Your task to perform on an android device: install app "Adobe Express: Graphic Design" Image 0: 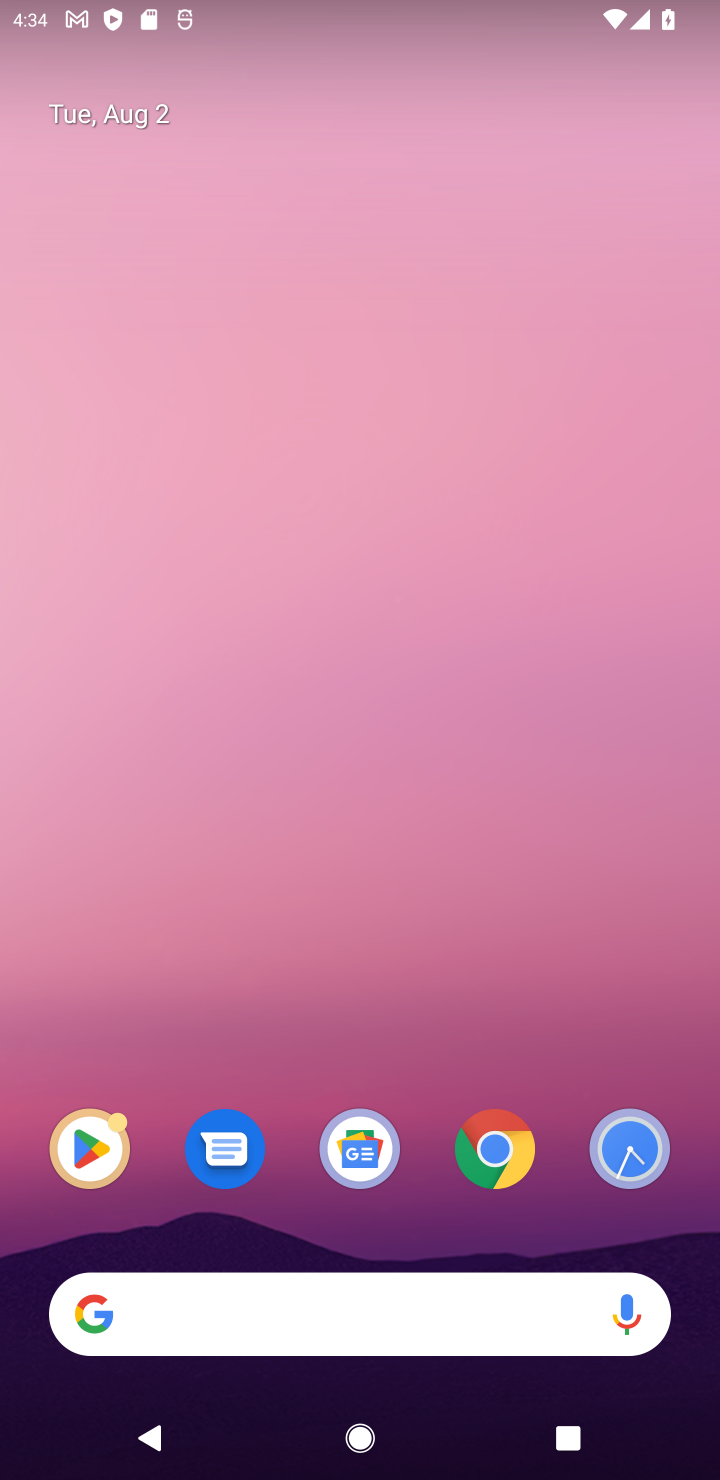
Step 0: click (100, 1142)
Your task to perform on an android device: install app "Adobe Express: Graphic Design" Image 1: 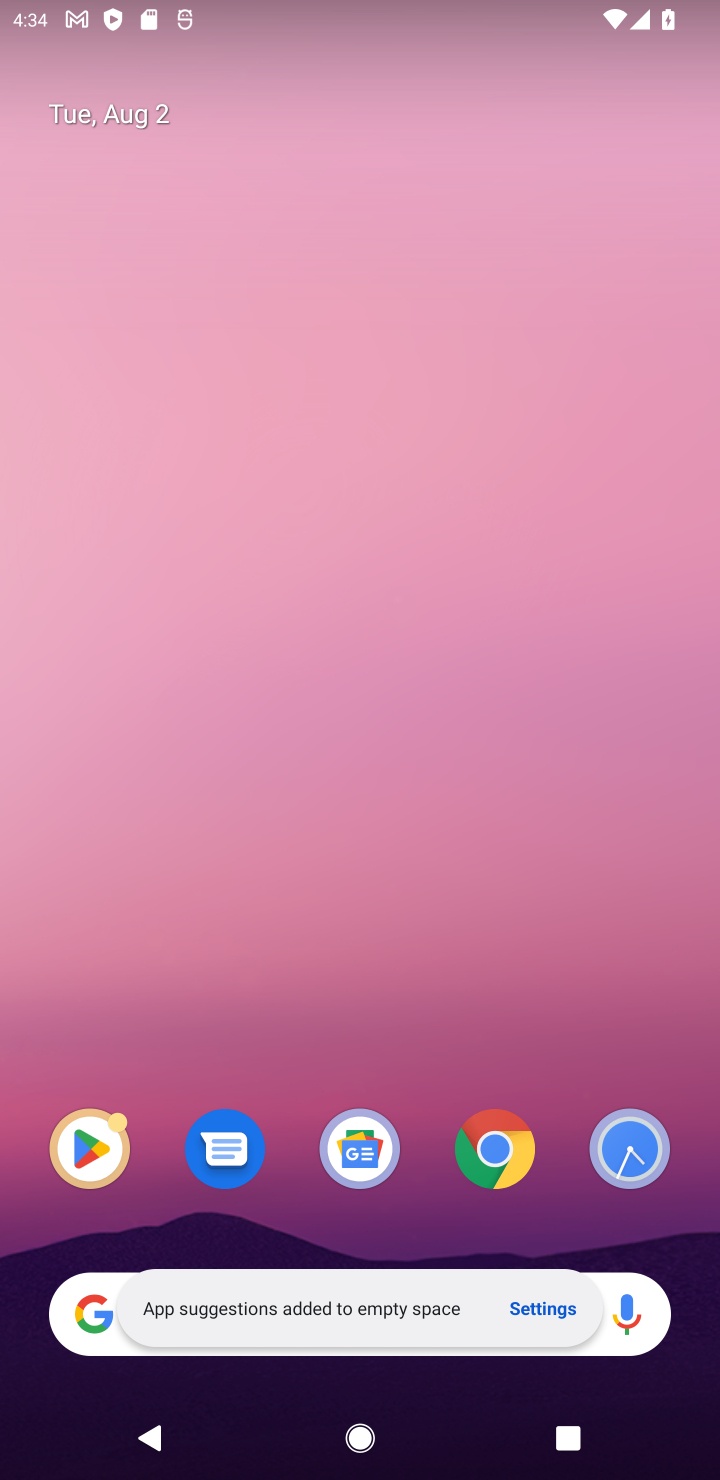
Step 1: click (96, 1117)
Your task to perform on an android device: install app "Adobe Express: Graphic Design" Image 2: 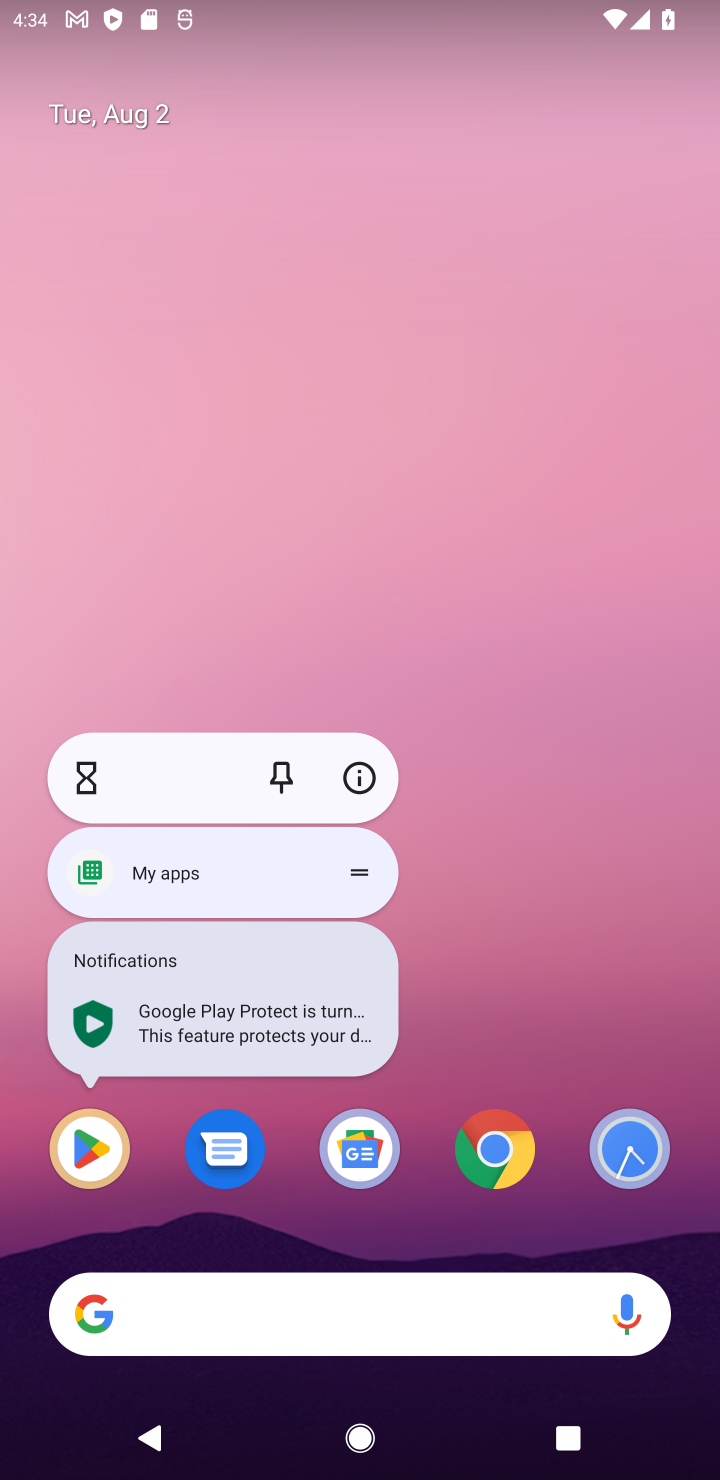
Step 2: click (108, 1166)
Your task to perform on an android device: install app "Adobe Express: Graphic Design" Image 3: 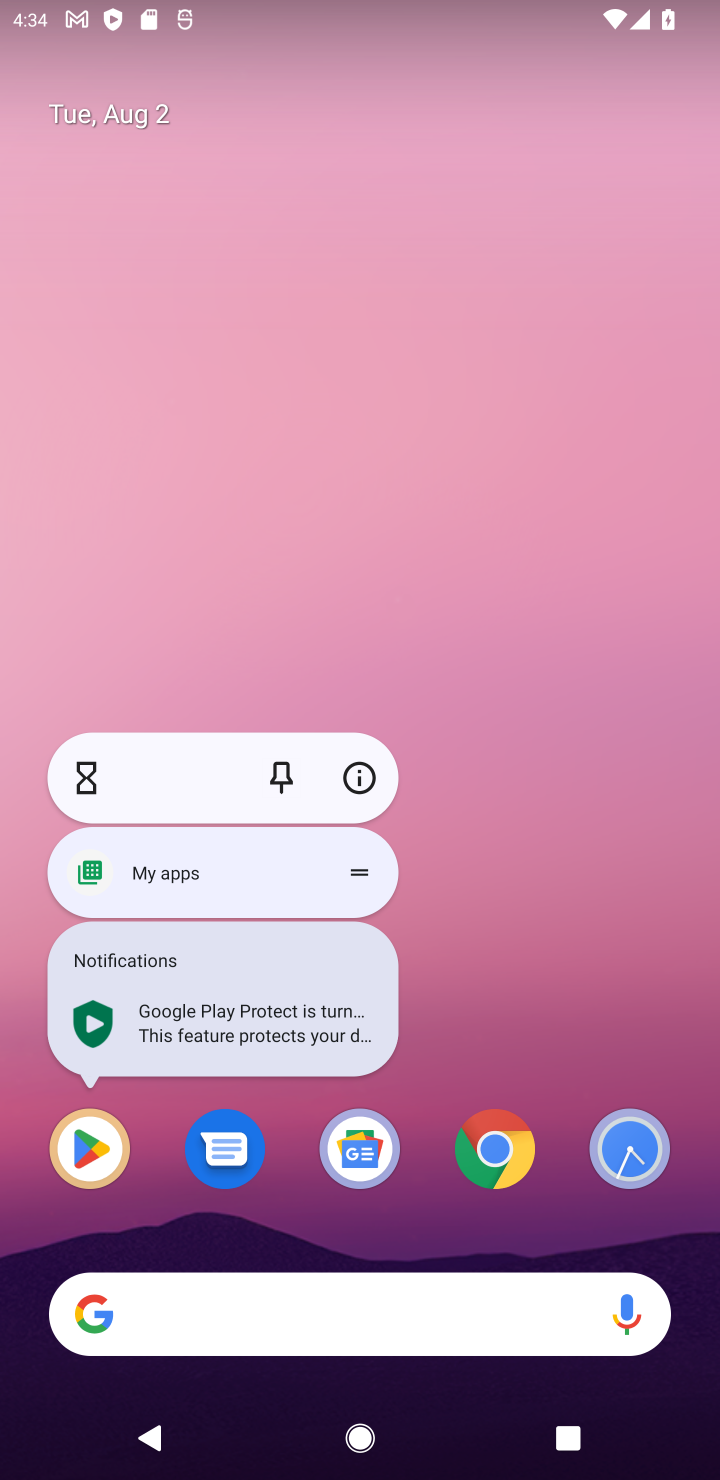
Step 3: click (65, 1138)
Your task to perform on an android device: install app "Adobe Express: Graphic Design" Image 4: 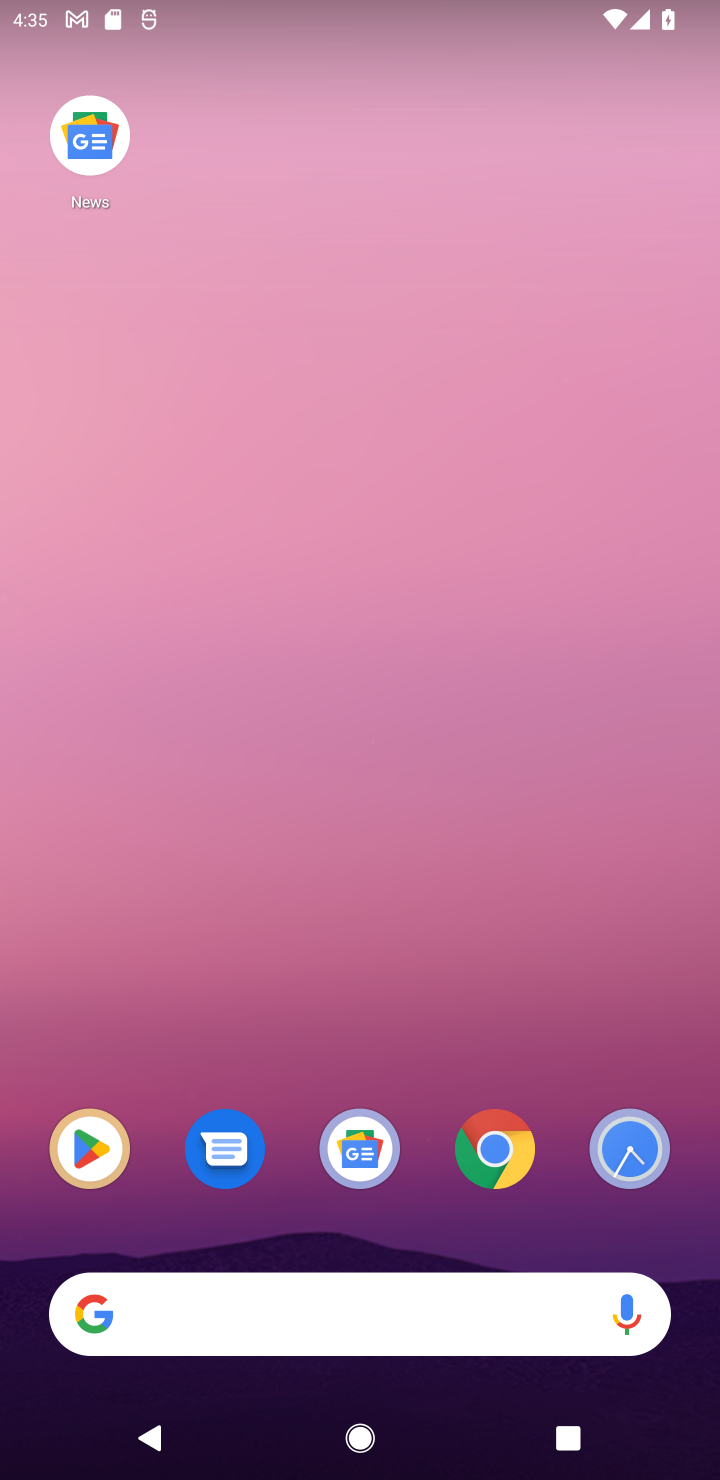
Step 4: click (88, 1140)
Your task to perform on an android device: install app "Adobe Express: Graphic Design" Image 5: 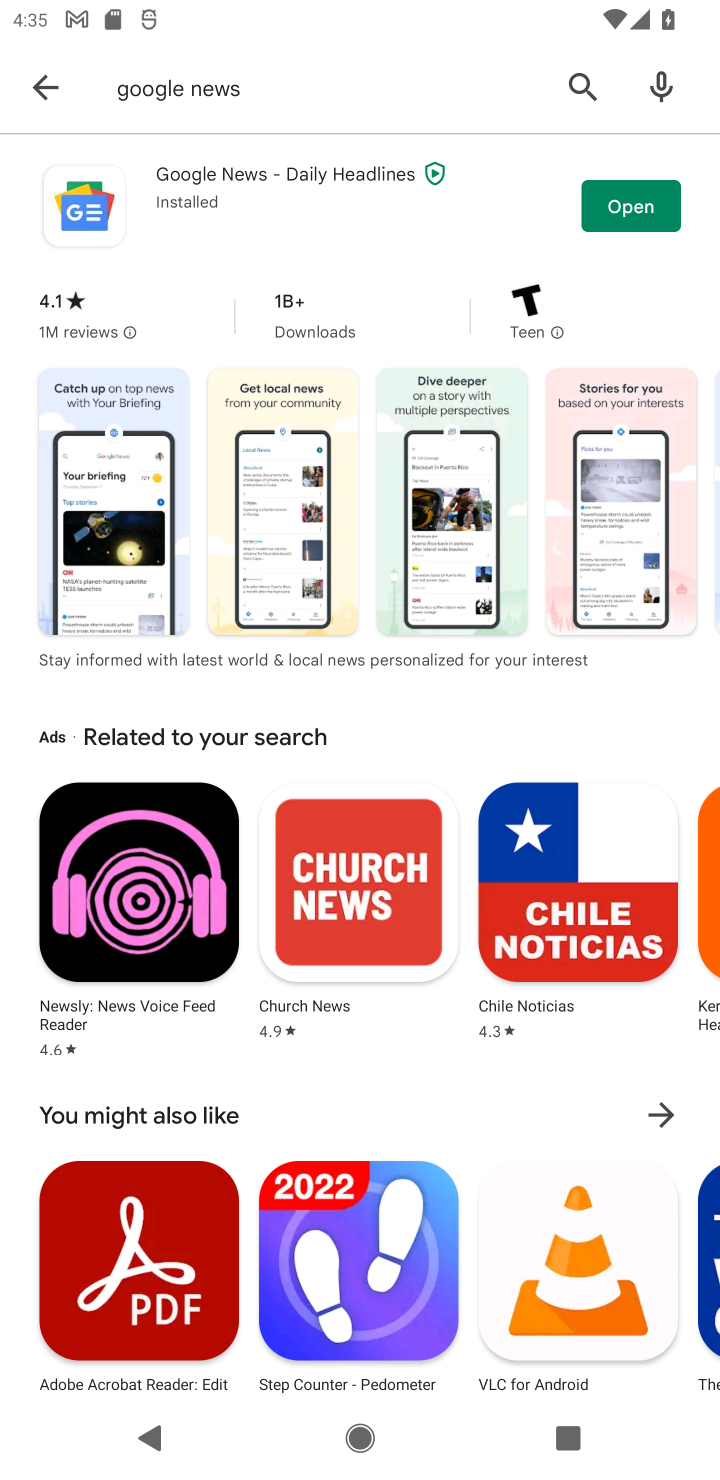
Step 5: click (42, 98)
Your task to perform on an android device: install app "Adobe Express: Graphic Design" Image 6: 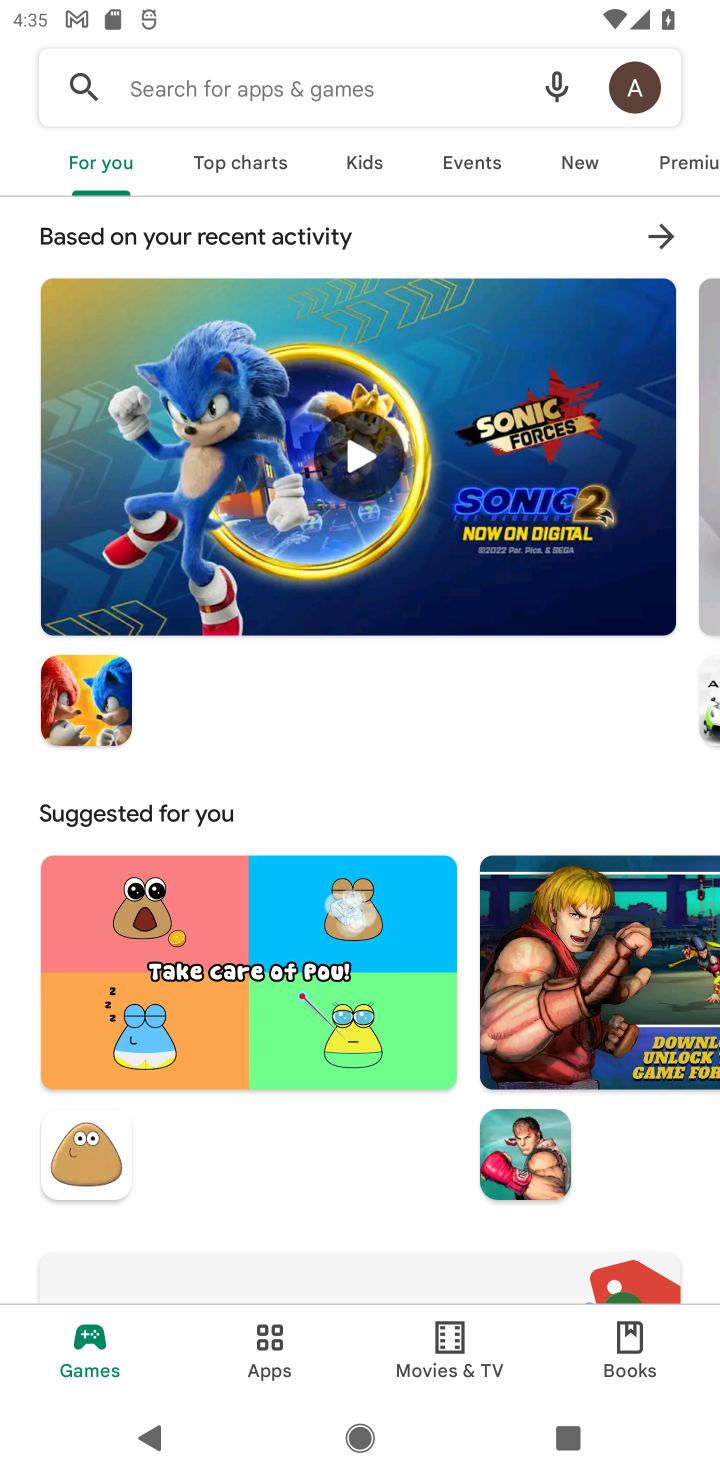
Step 6: click (171, 79)
Your task to perform on an android device: install app "Adobe Express: Graphic Design" Image 7: 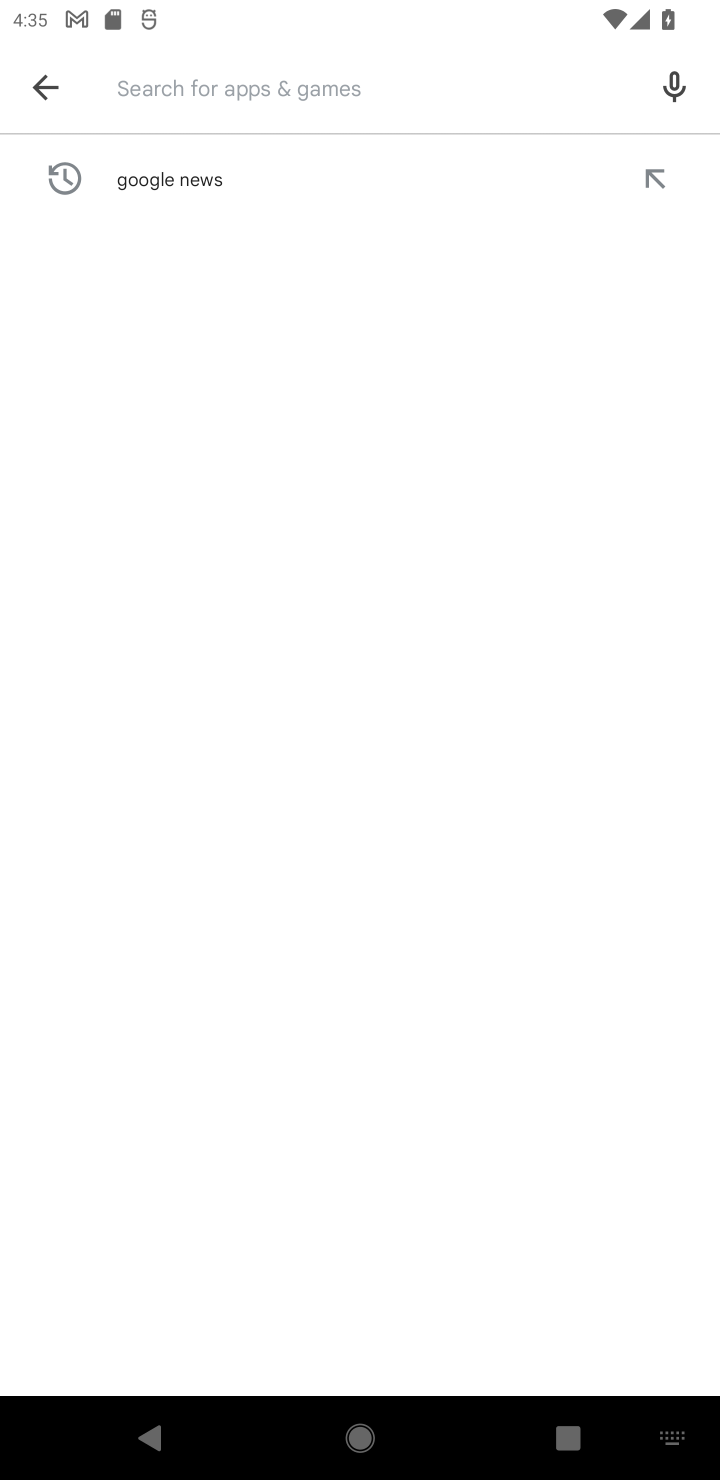
Step 7: type "Adobe Express: Graphic Design"
Your task to perform on an android device: install app "Adobe Express: Graphic Design" Image 8: 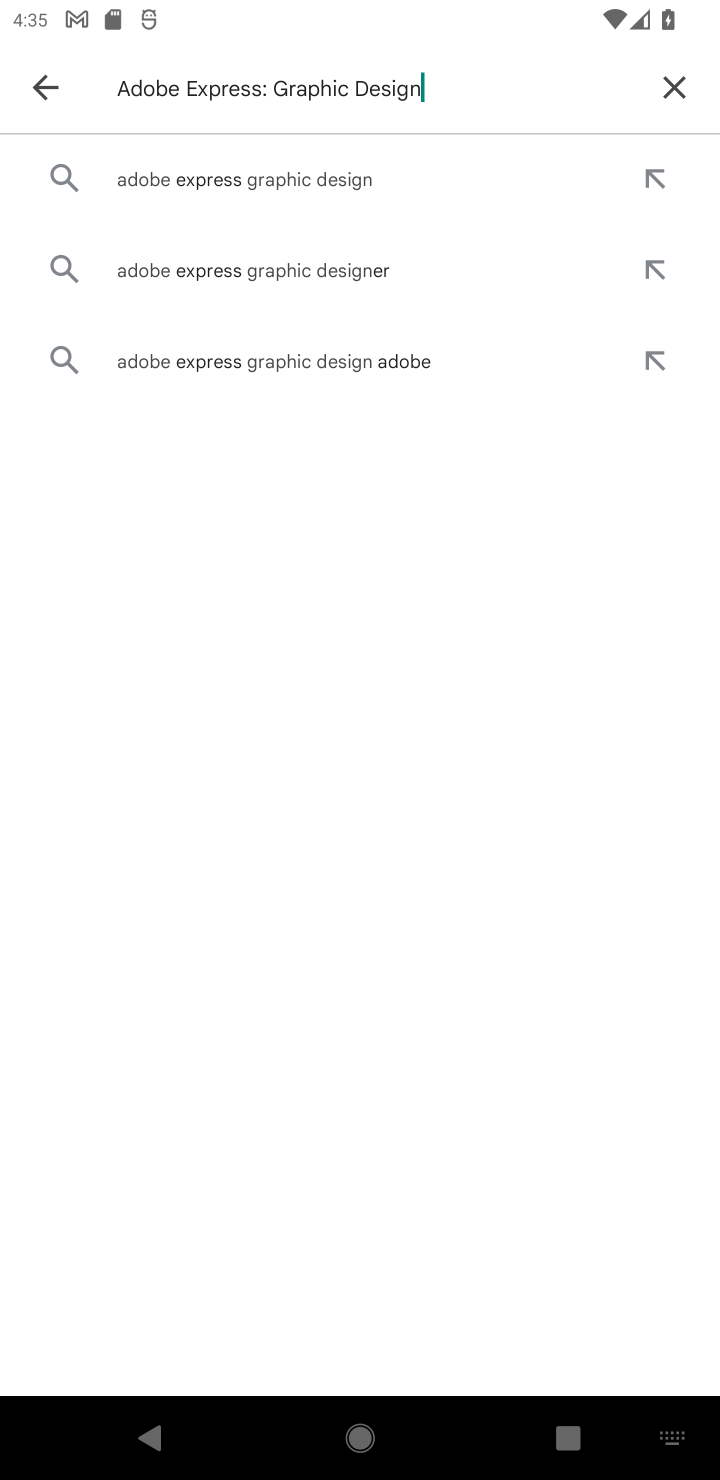
Step 8: click (265, 186)
Your task to perform on an android device: install app "Adobe Express: Graphic Design" Image 9: 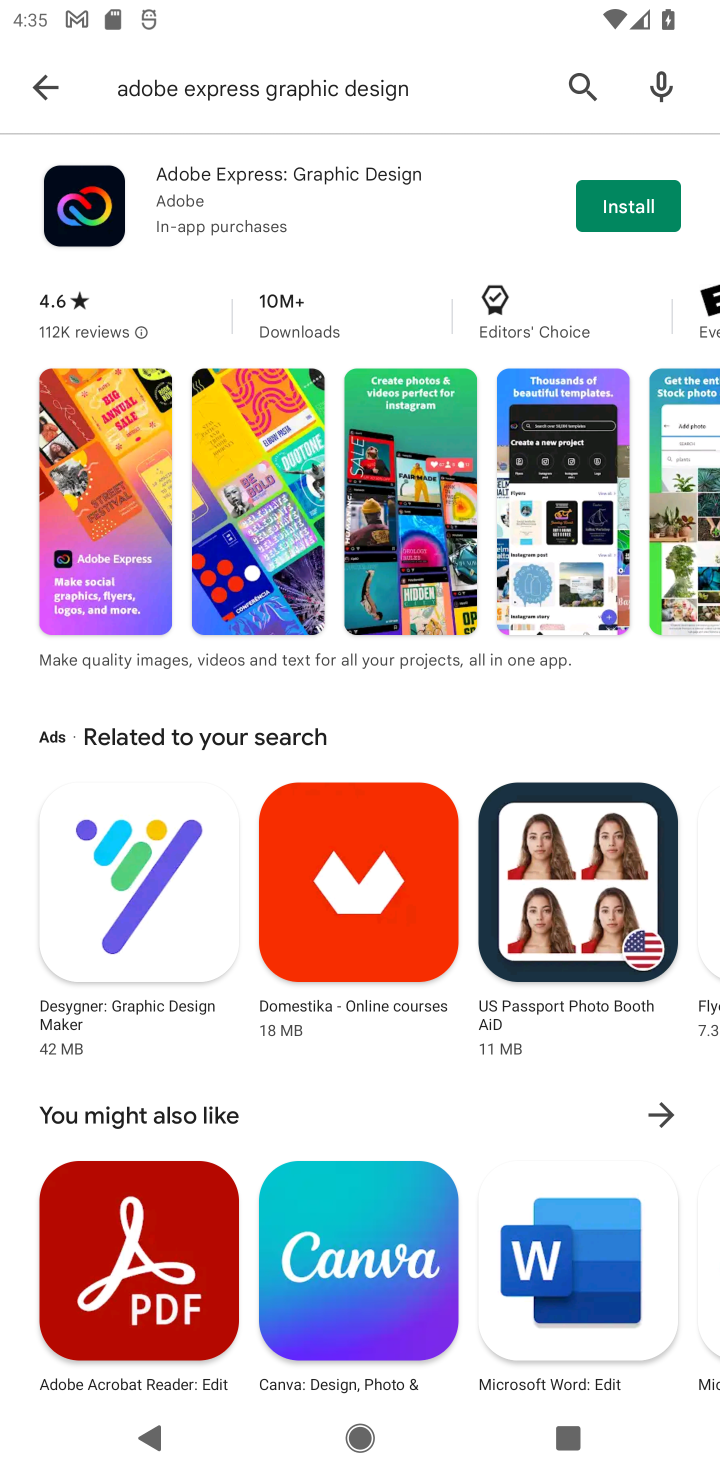
Step 9: click (593, 205)
Your task to perform on an android device: install app "Adobe Express: Graphic Design" Image 10: 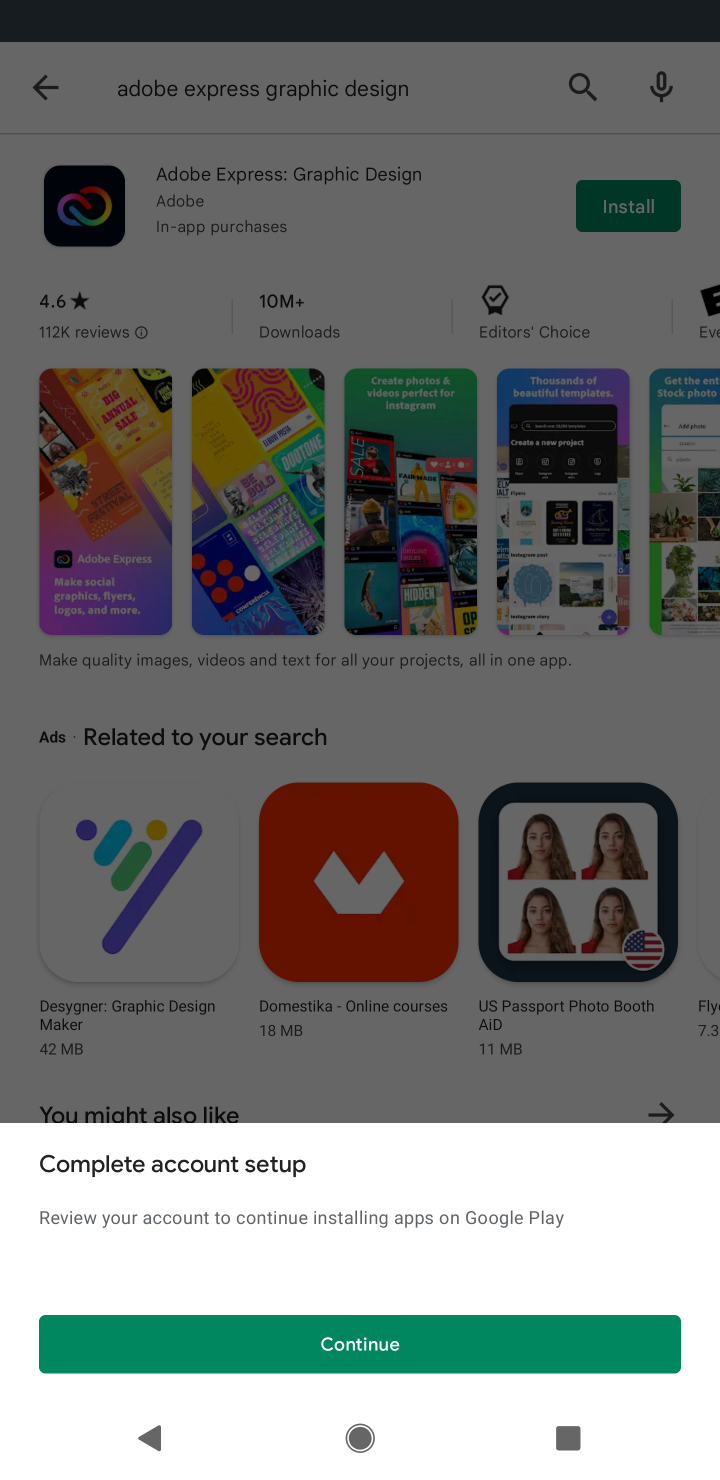
Step 10: task complete